Your task to perform on an android device: install app "LinkedIn" Image 0: 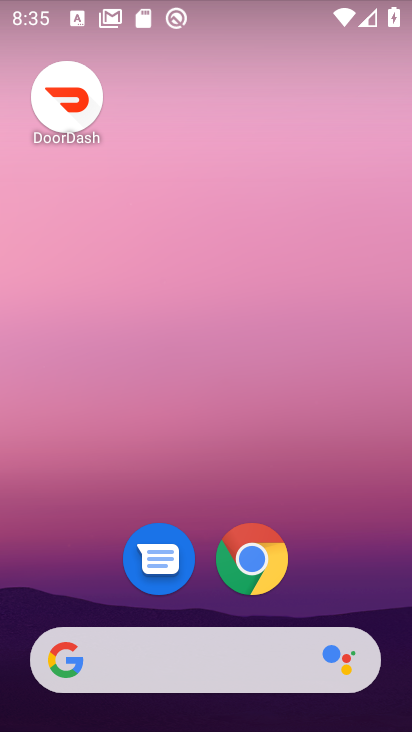
Step 0: drag from (188, 486) to (260, 87)
Your task to perform on an android device: install app "LinkedIn" Image 1: 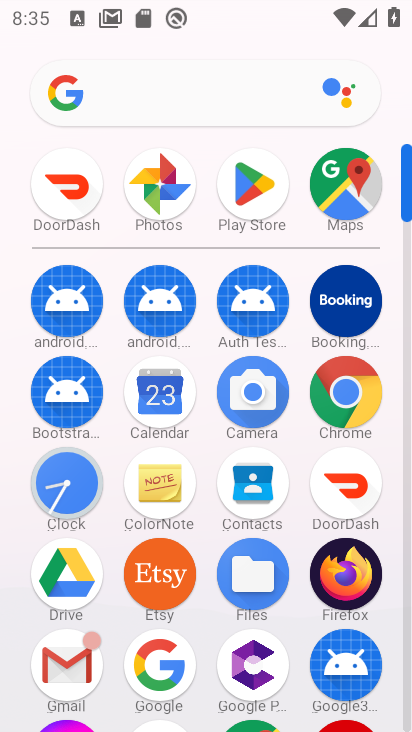
Step 1: click (251, 200)
Your task to perform on an android device: install app "LinkedIn" Image 2: 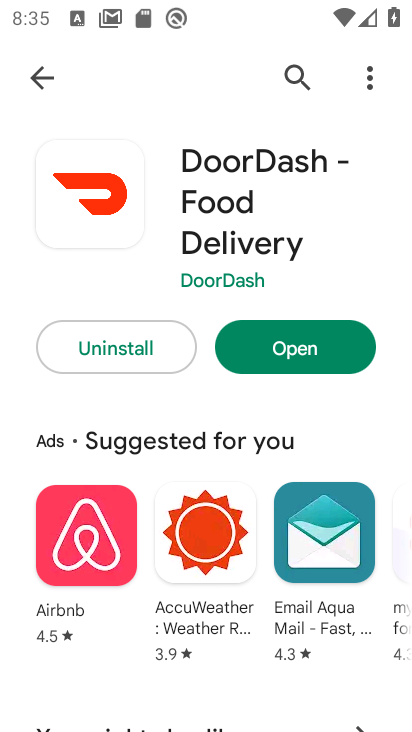
Step 2: click (293, 80)
Your task to perform on an android device: install app "LinkedIn" Image 3: 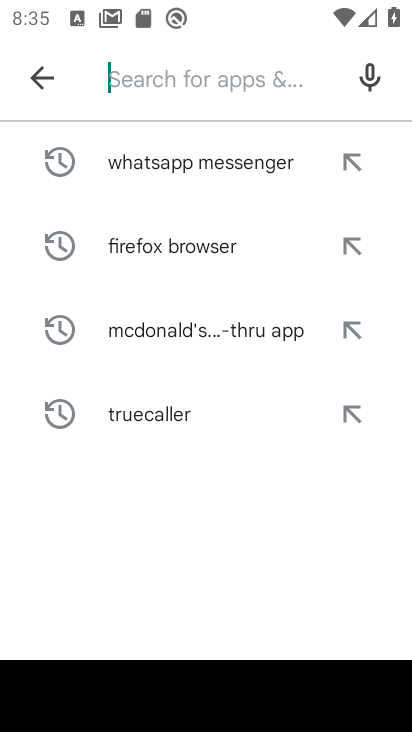
Step 3: type "LinkedIn"
Your task to perform on an android device: install app "LinkedIn" Image 4: 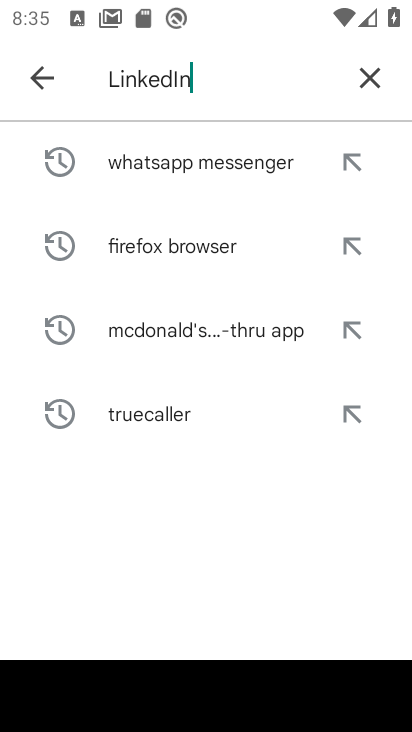
Step 4: type ""
Your task to perform on an android device: install app "LinkedIn" Image 5: 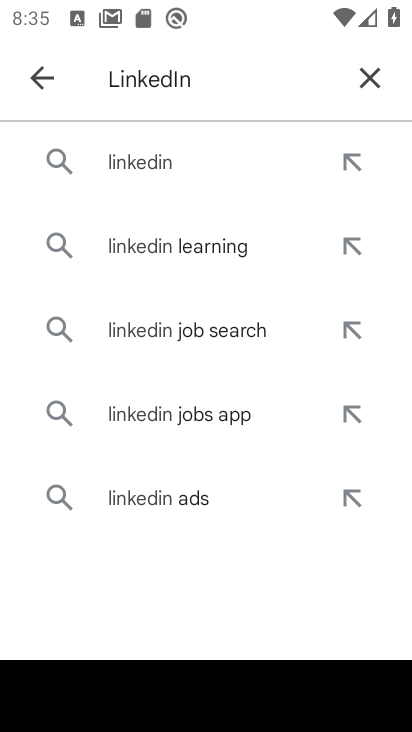
Step 5: click (212, 168)
Your task to perform on an android device: install app "LinkedIn" Image 6: 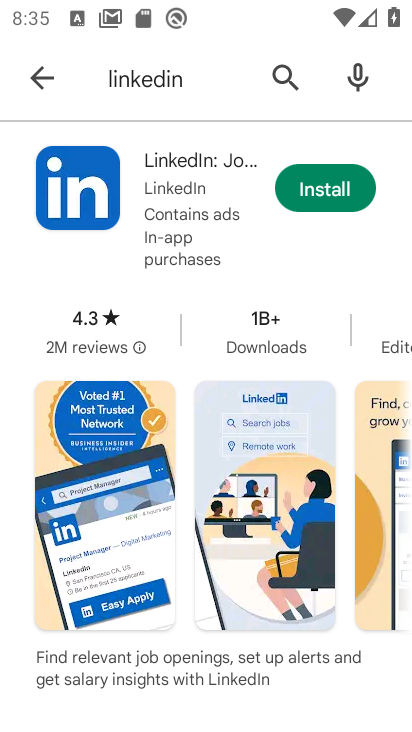
Step 6: click (338, 192)
Your task to perform on an android device: install app "LinkedIn" Image 7: 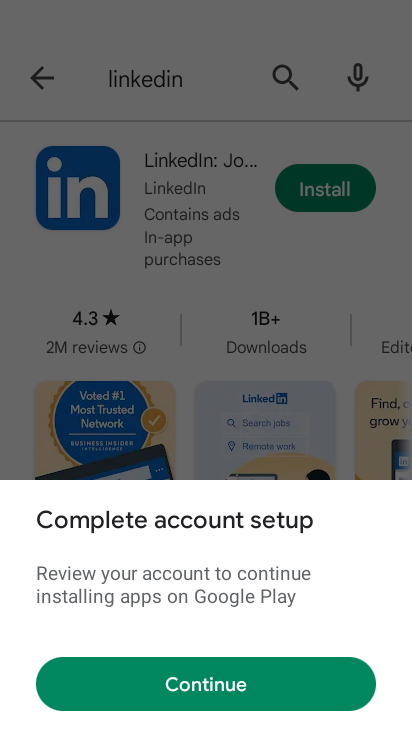
Step 7: click (226, 702)
Your task to perform on an android device: install app "LinkedIn" Image 8: 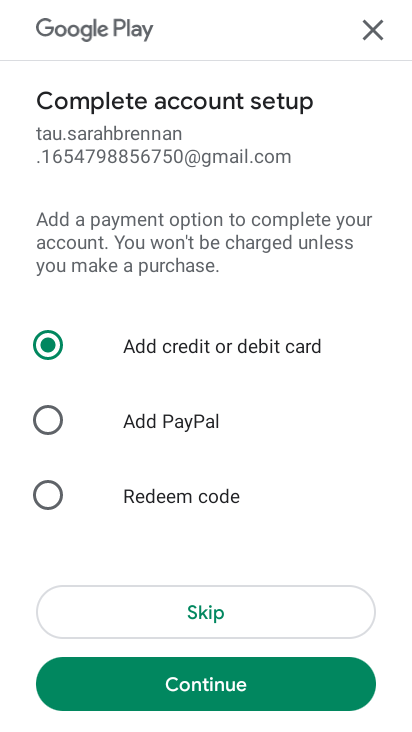
Step 8: click (208, 625)
Your task to perform on an android device: install app "LinkedIn" Image 9: 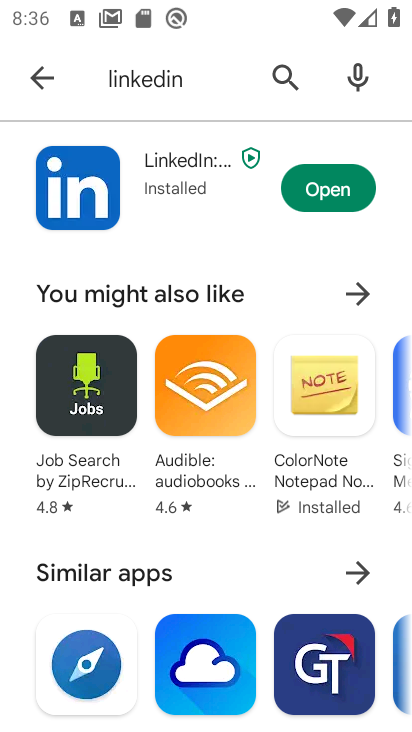
Step 9: task complete